Your task to perform on an android device: open app "Google Play Music" Image 0: 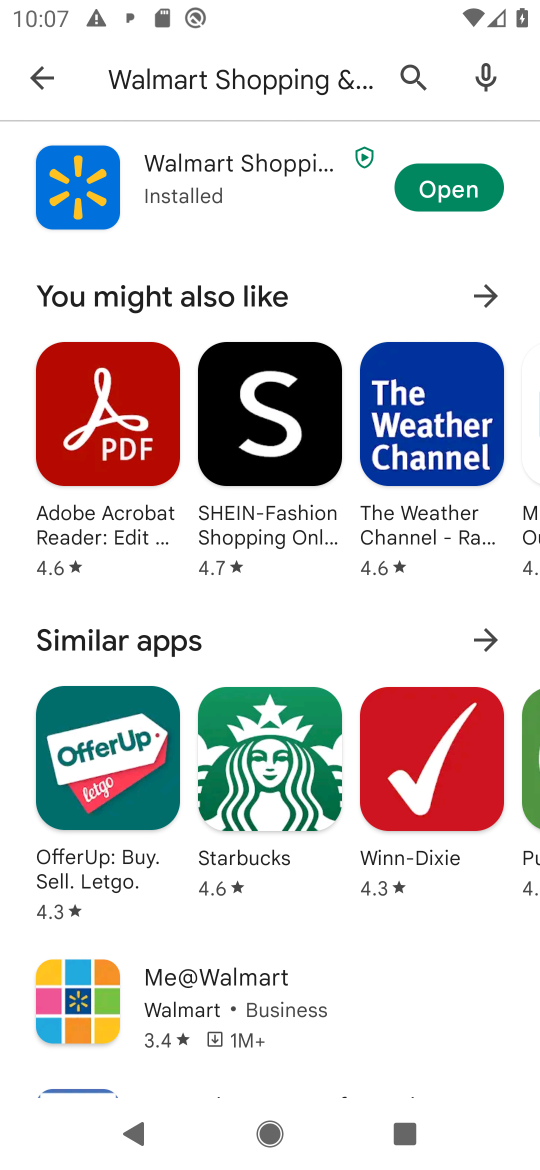
Step 0: press home button
Your task to perform on an android device: open app "Google Play Music" Image 1: 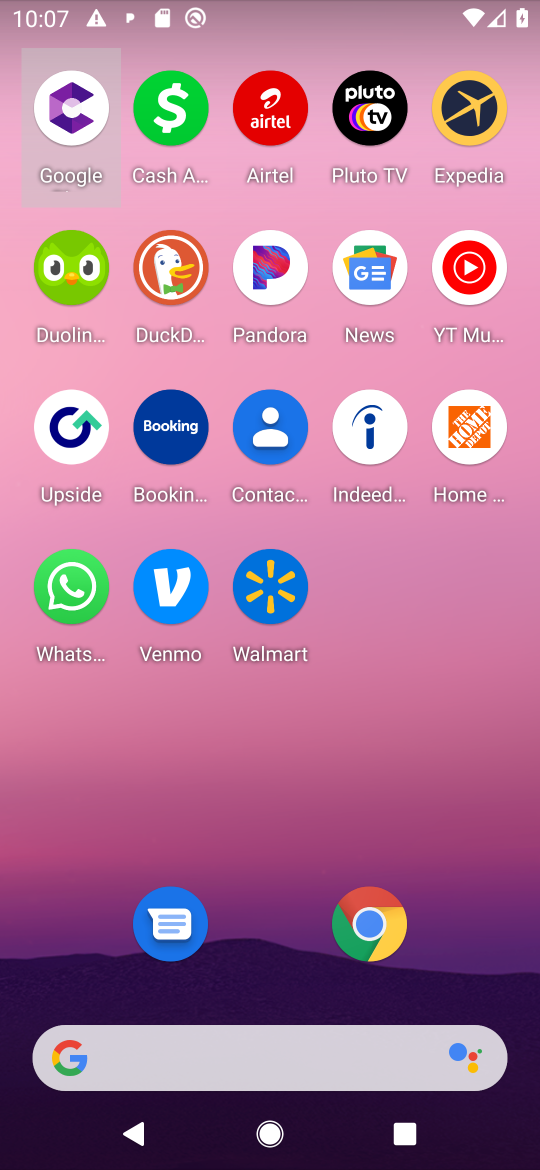
Step 1: drag from (456, 802) to (418, 60)
Your task to perform on an android device: open app "Google Play Music" Image 2: 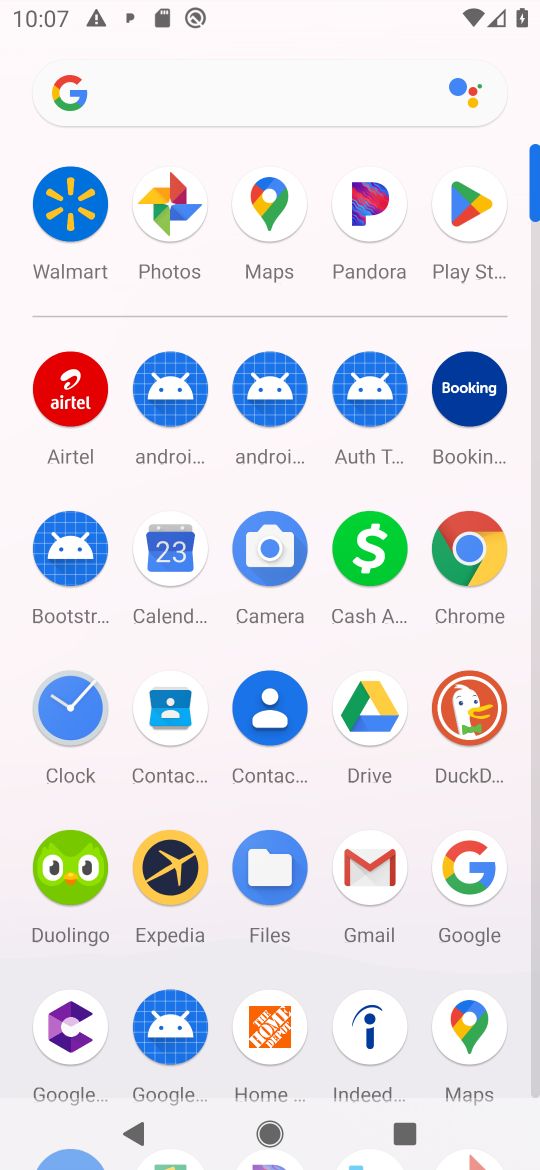
Step 2: click (471, 205)
Your task to perform on an android device: open app "Google Play Music" Image 3: 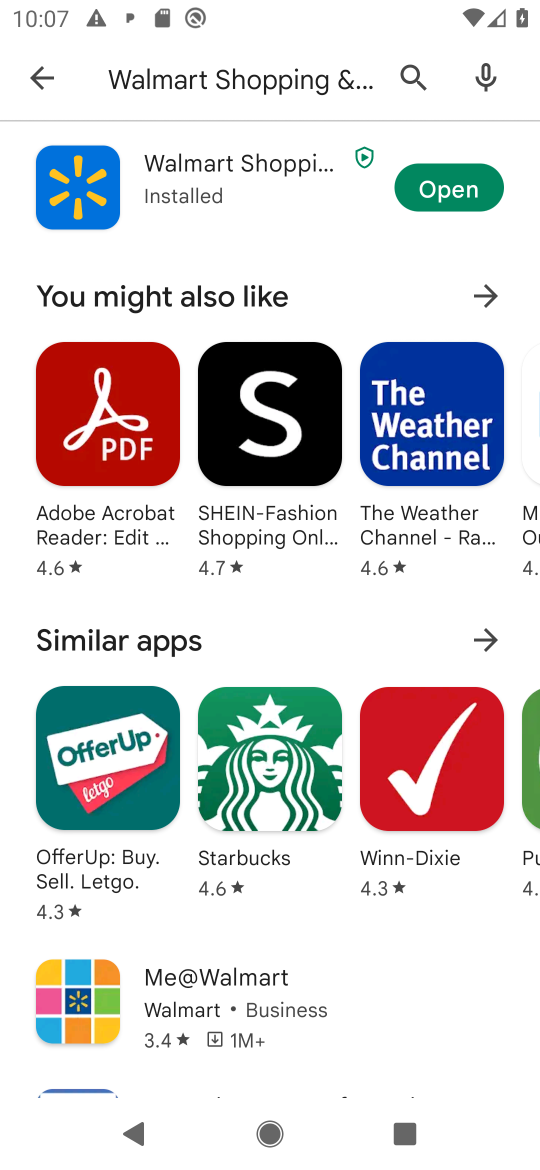
Step 3: press back button
Your task to perform on an android device: open app "Google Play Music" Image 4: 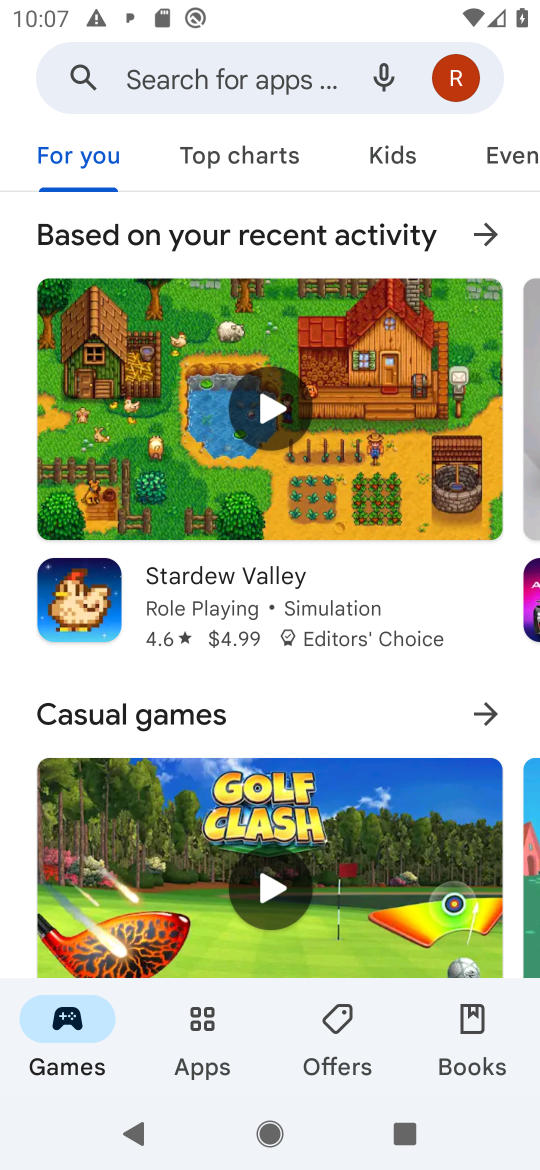
Step 4: click (264, 77)
Your task to perform on an android device: open app "Google Play Music" Image 5: 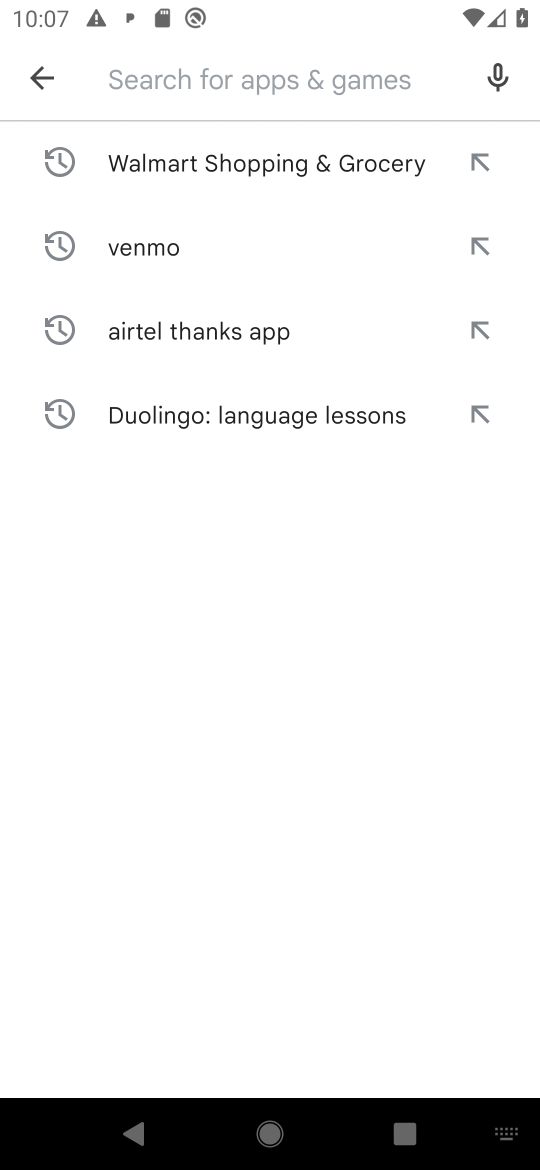
Step 5: type "Google Play Music"
Your task to perform on an android device: open app "Google Play Music" Image 6: 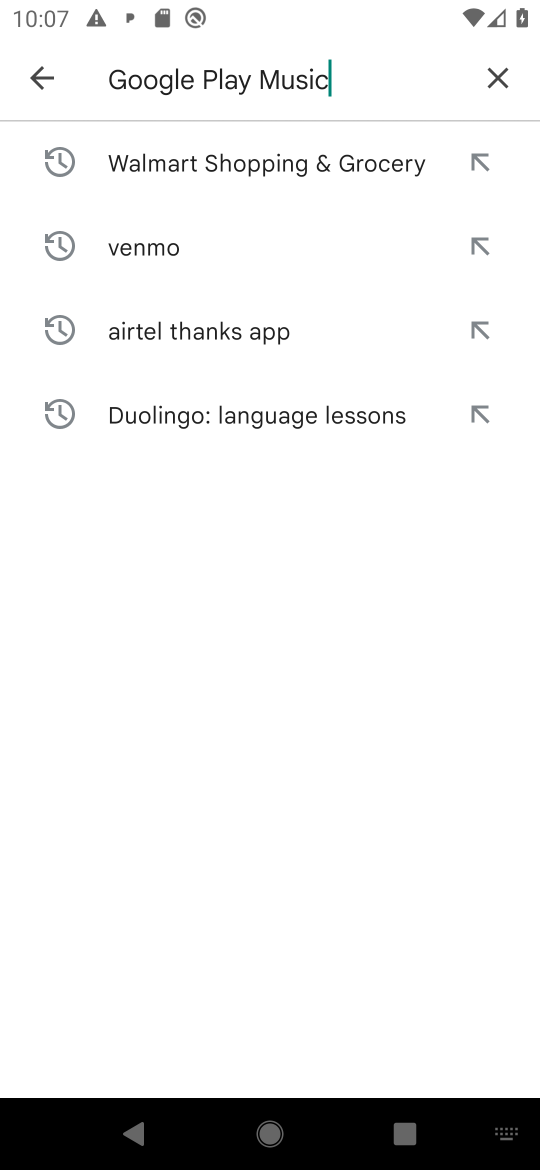
Step 6: press enter
Your task to perform on an android device: open app "Google Play Music" Image 7: 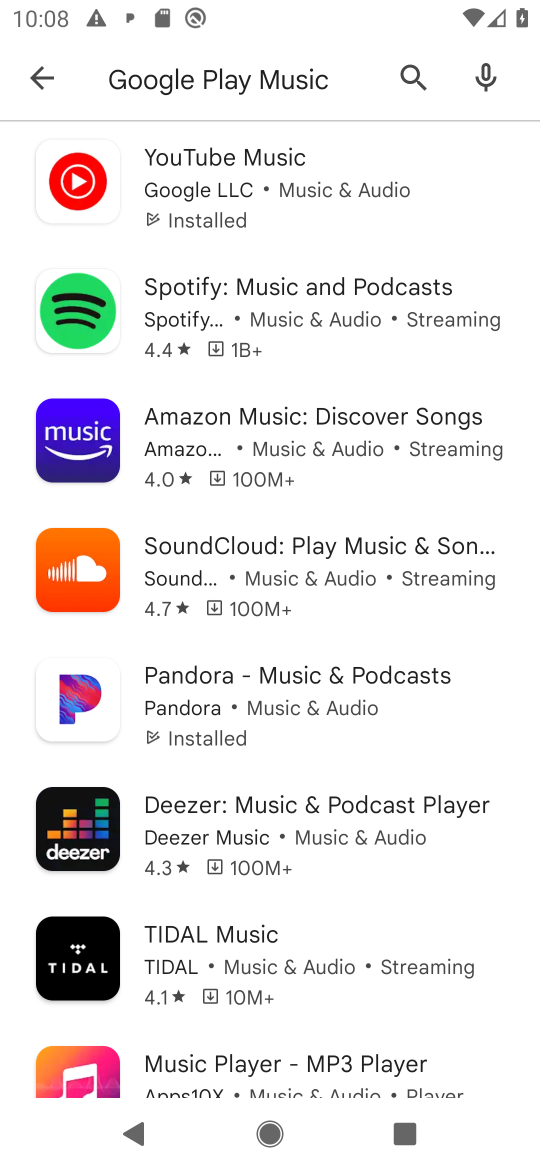
Step 7: task complete